Your task to perform on an android device: Open location settings Image 0: 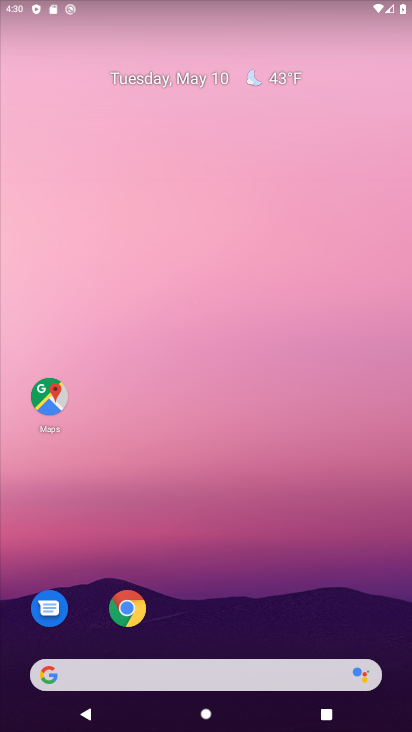
Step 0: drag from (257, 619) to (288, 64)
Your task to perform on an android device: Open location settings Image 1: 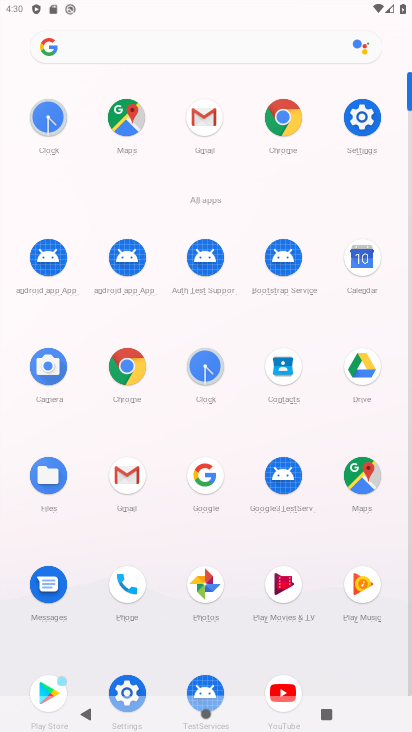
Step 1: click (356, 125)
Your task to perform on an android device: Open location settings Image 2: 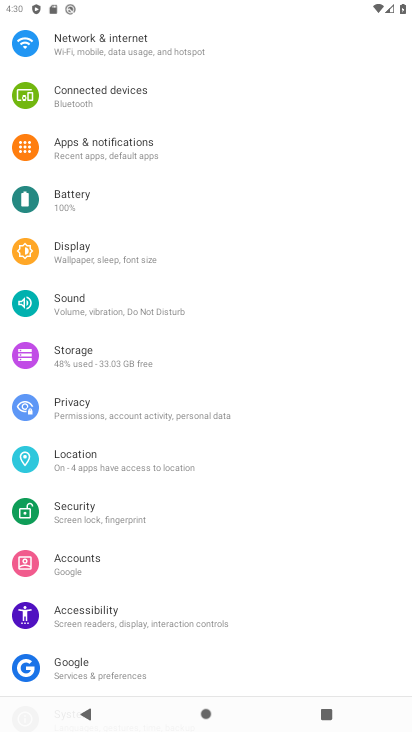
Step 2: click (111, 465)
Your task to perform on an android device: Open location settings Image 3: 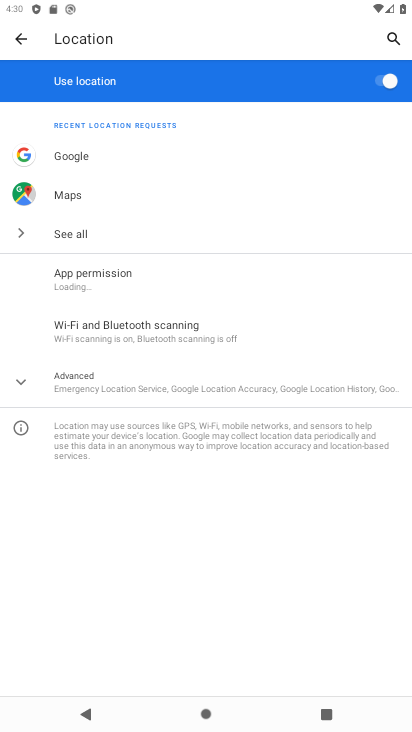
Step 3: task complete